Your task to perform on an android device: Show the shopping cart on newegg.com. Image 0: 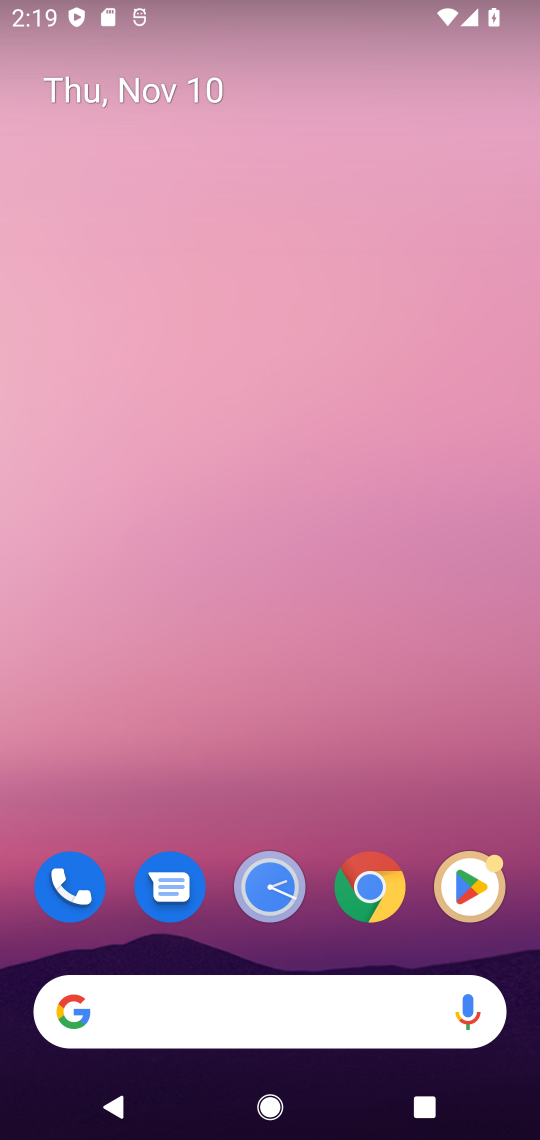
Step 0: drag from (335, 956) to (339, 15)
Your task to perform on an android device: Show the shopping cart on newegg.com. Image 1: 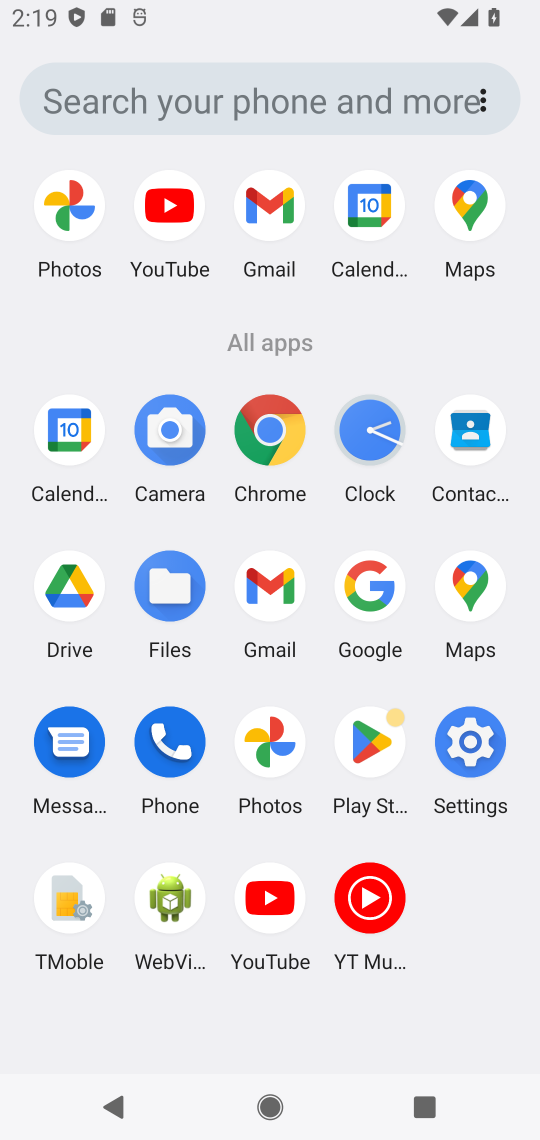
Step 1: click (270, 437)
Your task to perform on an android device: Show the shopping cart on newegg.com. Image 2: 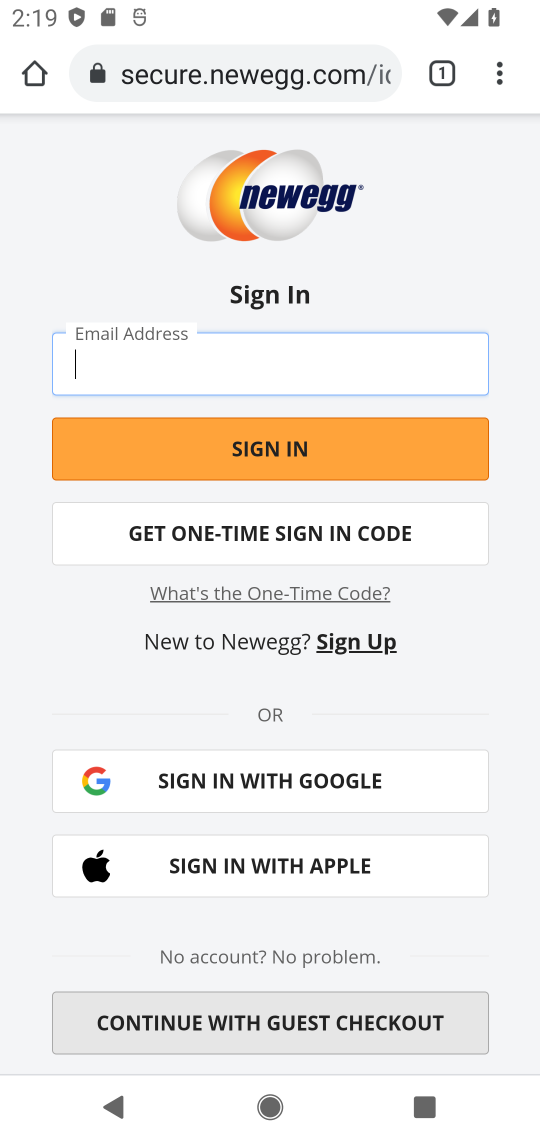
Step 2: click (280, 53)
Your task to perform on an android device: Show the shopping cart on newegg.com. Image 3: 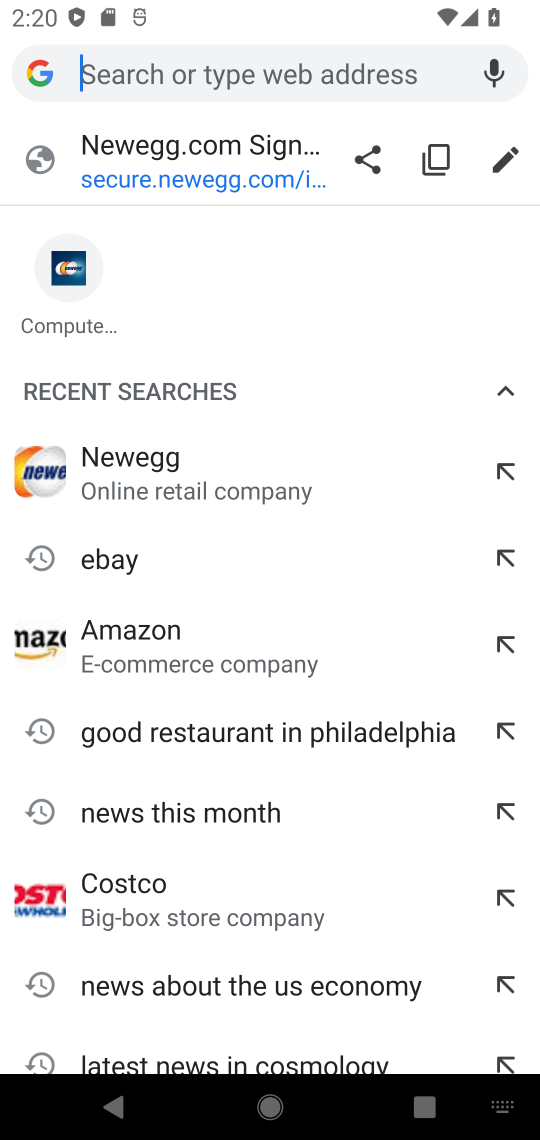
Step 3: type "newegg.com"
Your task to perform on an android device: Show the shopping cart on newegg.com. Image 4: 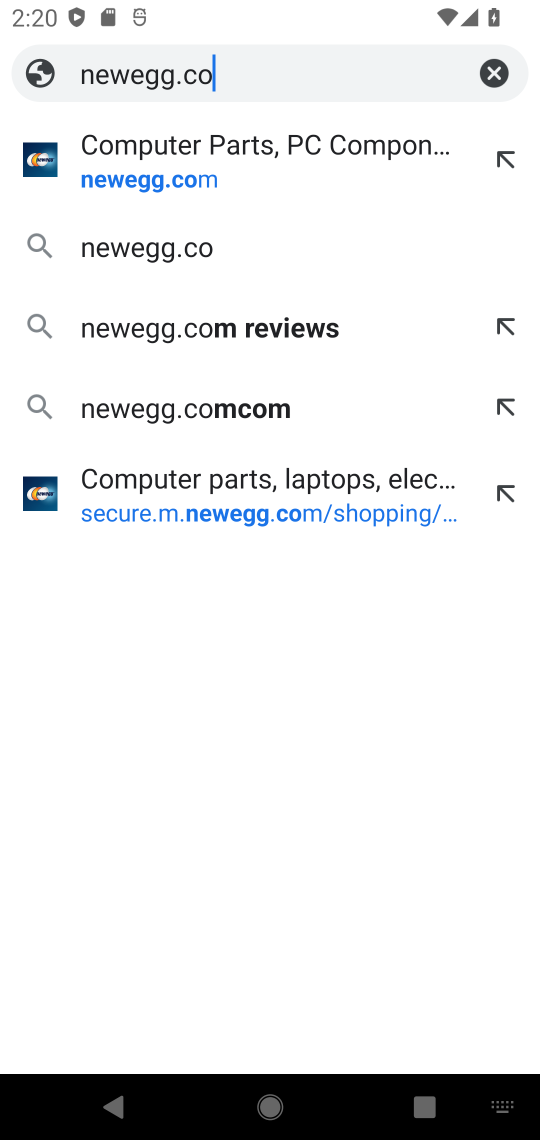
Step 4: press enter
Your task to perform on an android device: Show the shopping cart on newegg.com. Image 5: 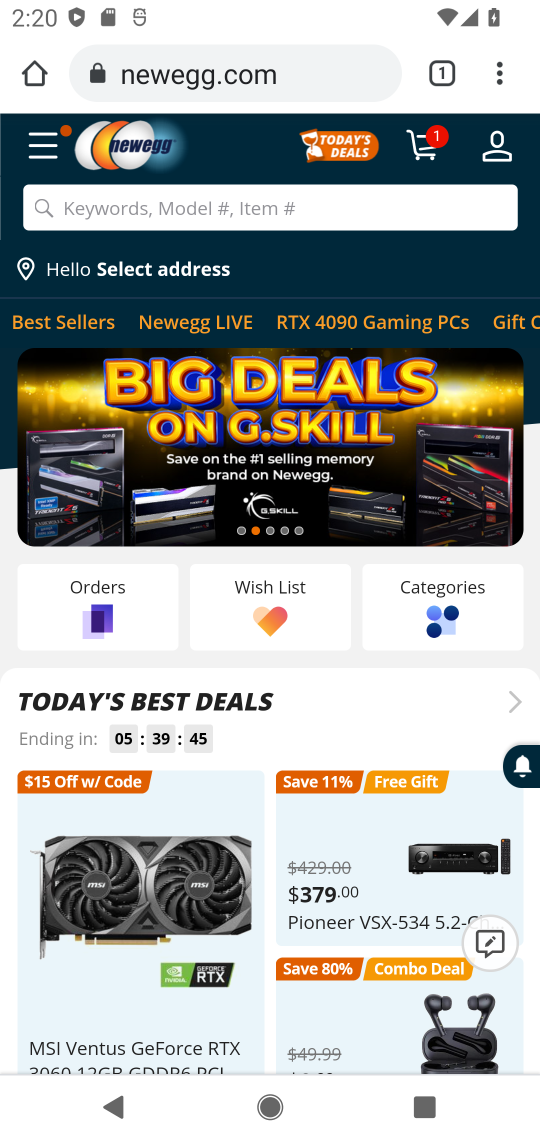
Step 5: click (417, 141)
Your task to perform on an android device: Show the shopping cart on newegg.com. Image 6: 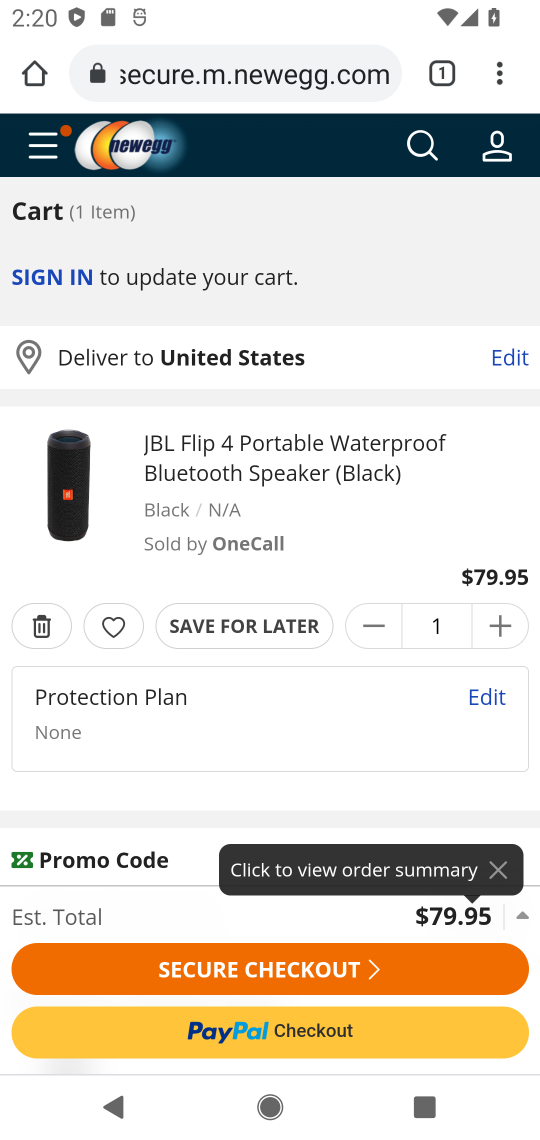
Step 6: task complete